Your task to perform on an android device: see creations saved in the google photos Image 0: 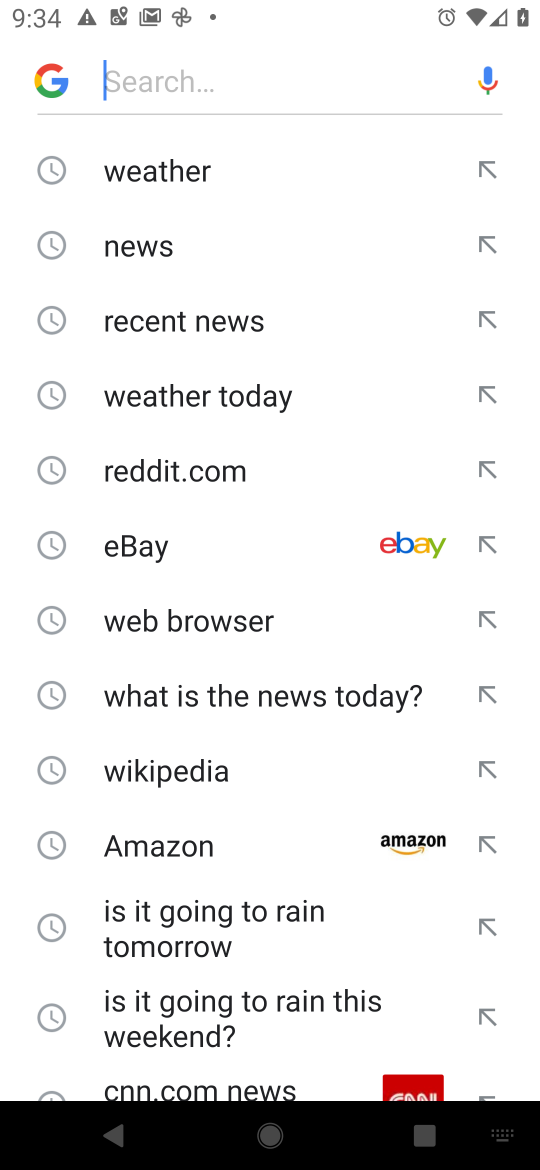
Step 0: press home button
Your task to perform on an android device: see creations saved in the google photos Image 1: 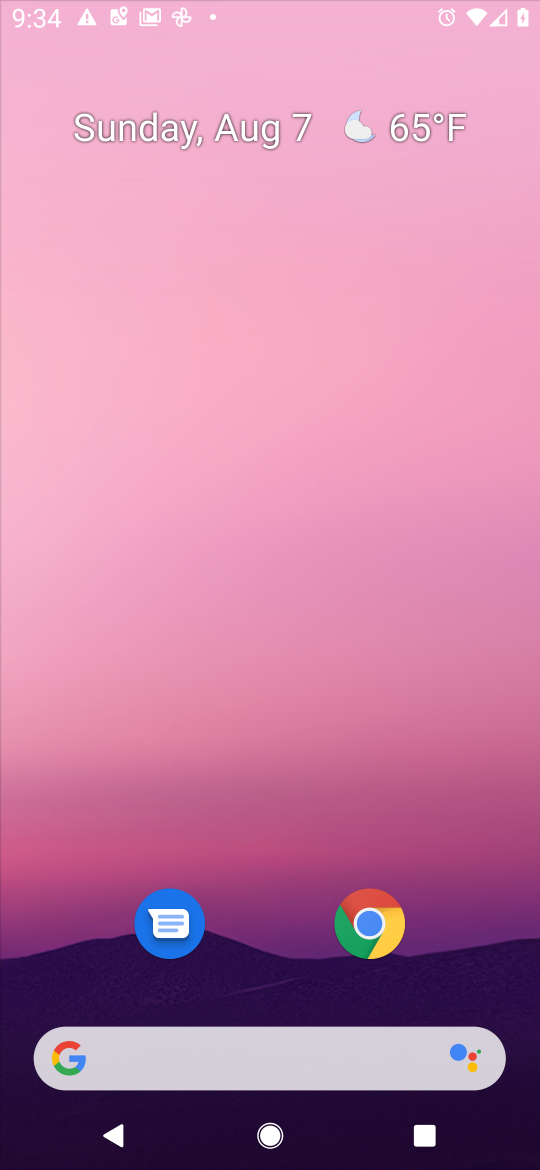
Step 1: drag from (468, 900) to (349, 54)
Your task to perform on an android device: see creations saved in the google photos Image 2: 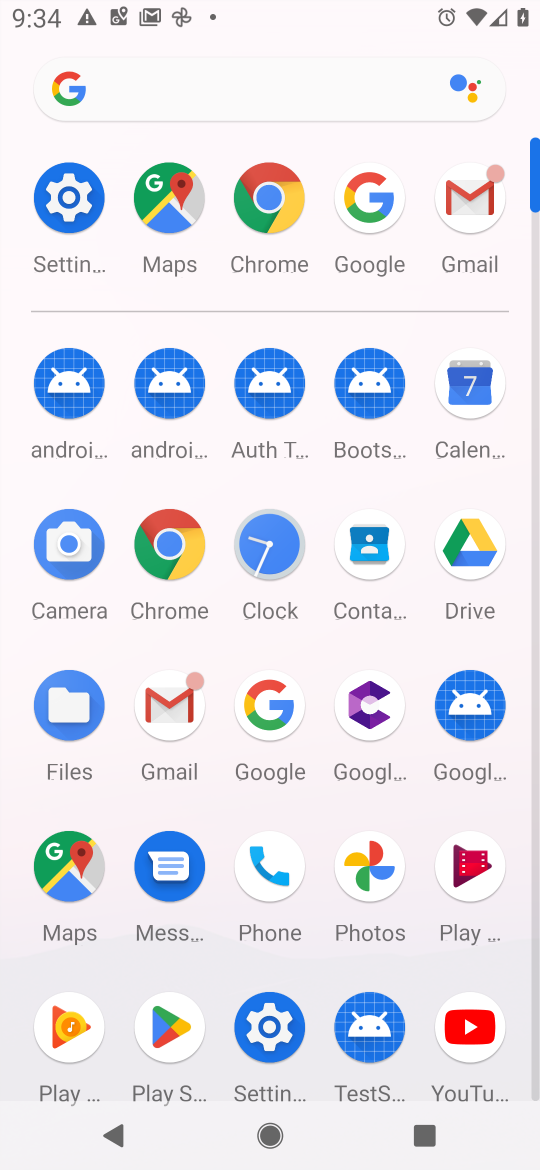
Step 2: click (392, 874)
Your task to perform on an android device: see creations saved in the google photos Image 3: 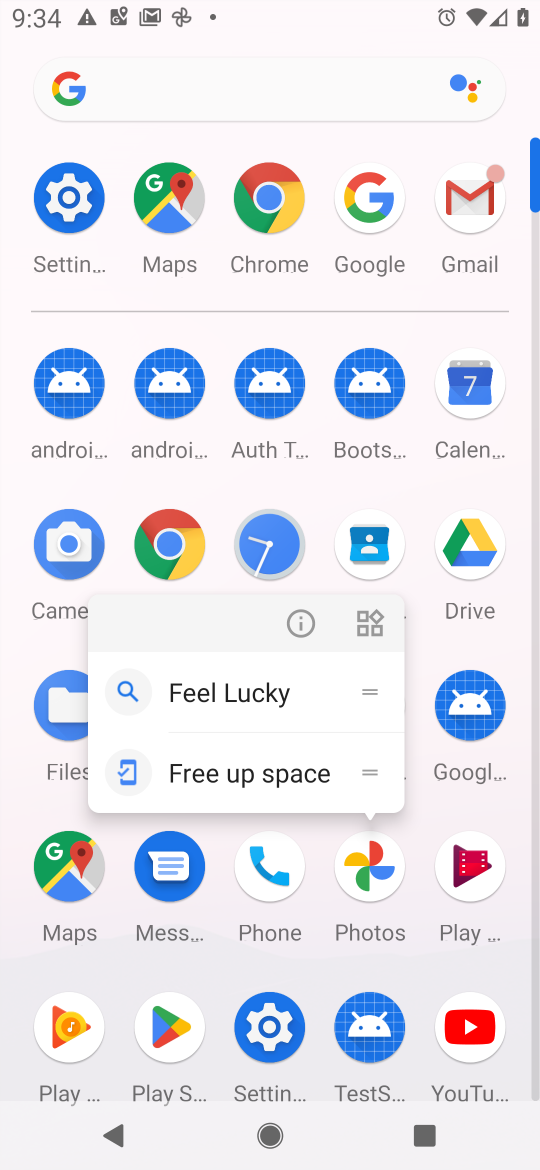
Step 3: click (392, 874)
Your task to perform on an android device: see creations saved in the google photos Image 4: 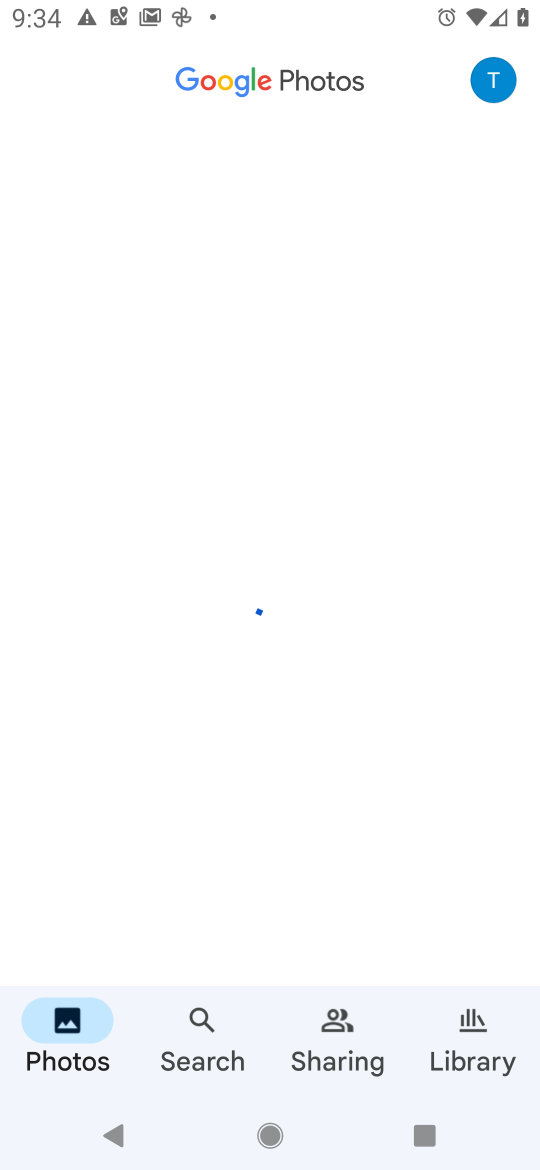
Step 4: click (202, 1021)
Your task to perform on an android device: see creations saved in the google photos Image 5: 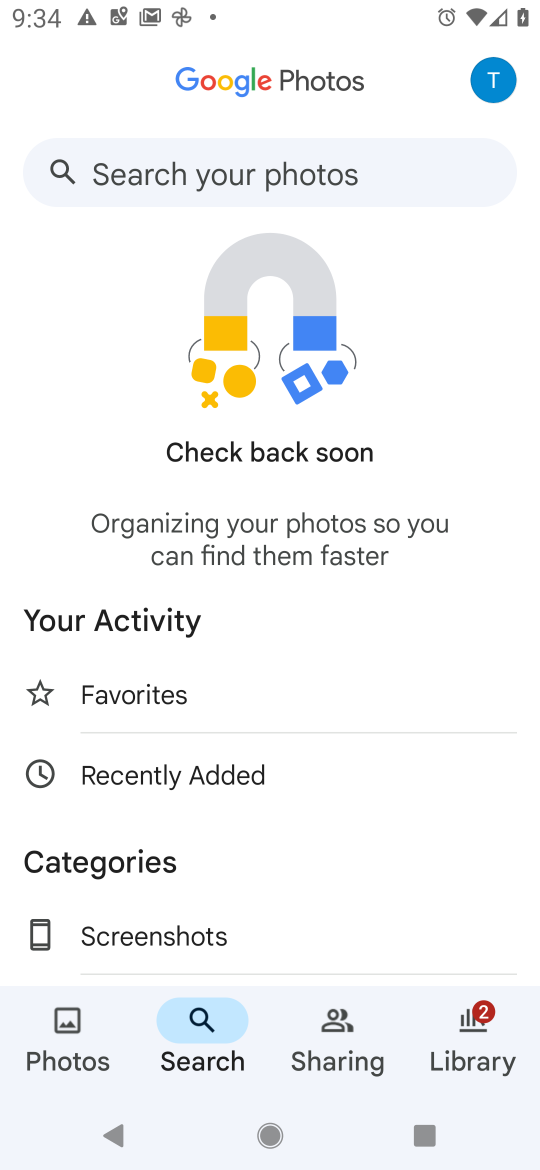
Step 5: drag from (237, 920) to (193, 104)
Your task to perform on an android device: see creations saved in the google photos Image 6: 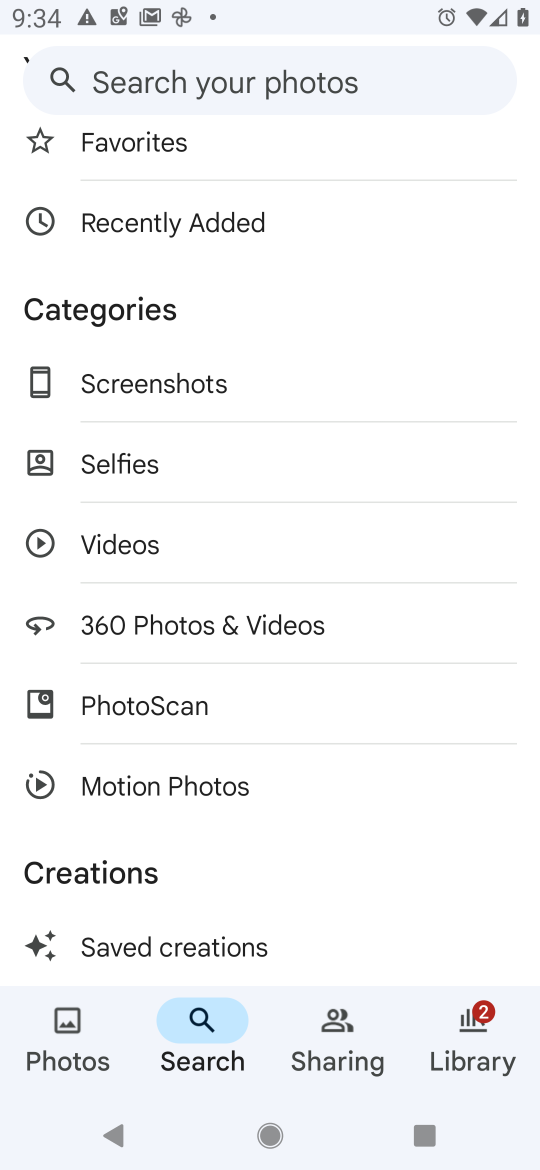
Step 6: click (130, 949)
Your task to perform on an android device: see creations saved in the google photos Image 7: 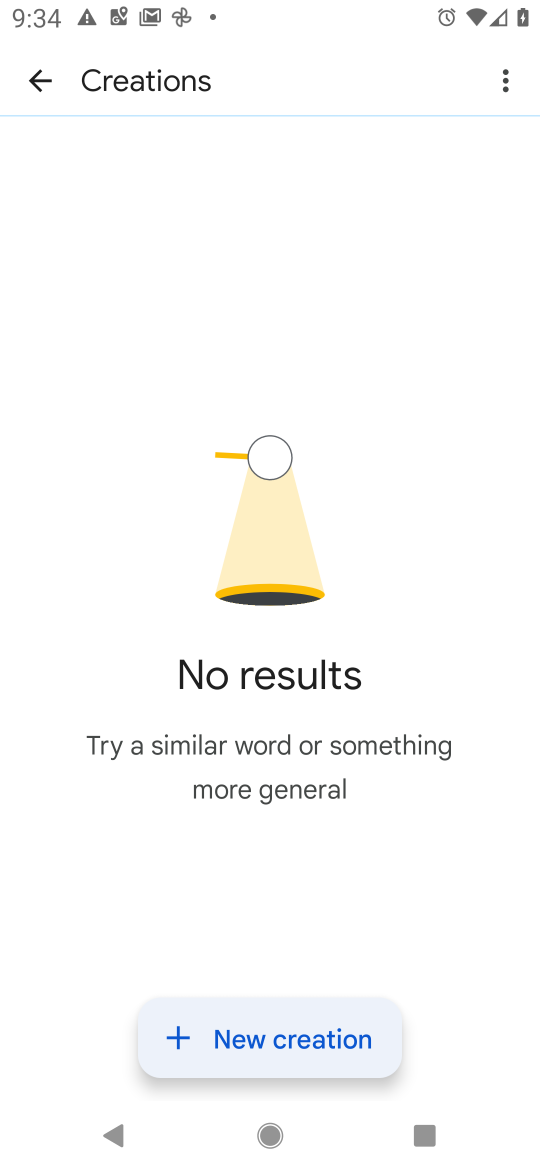
Step 7: task complete